Your task to perform on an android device: Open sound settings Image 0: 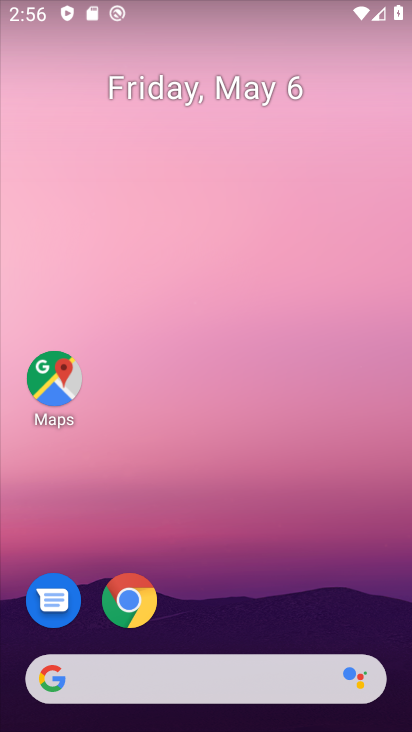
Step 0: drag from (206, 672) to (253, 123)
Your task to perform on an android device: Open sound settings Image 1: 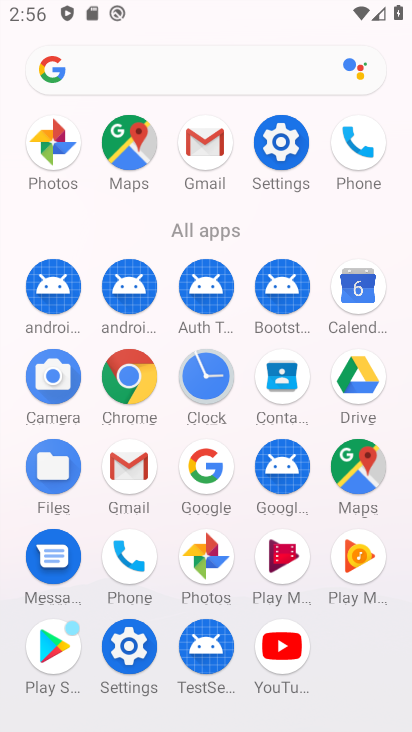
Step 1: click (135, 639)
Your task to perform on an android device: Open sound settings Image 2: 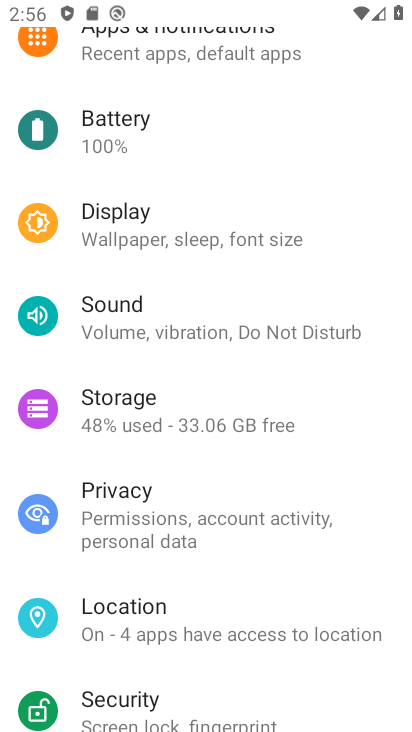
Step 2: click (124, 317)
Your task to perform on an android device: Open sound settings Image 3: 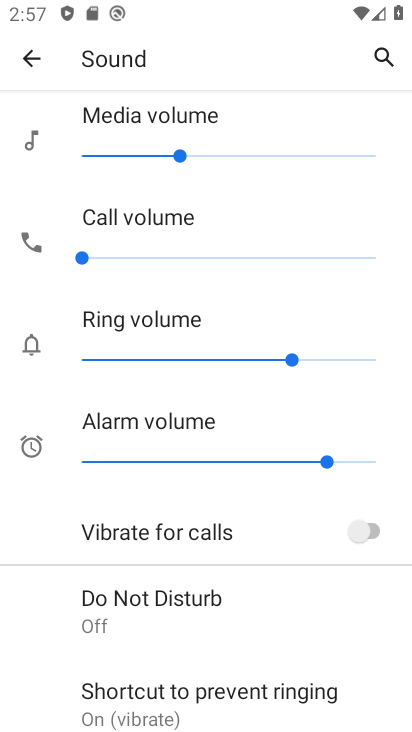
Step 3: task complete